Your task to perform on an android device: delete browsing data in the chrome app Image 0: 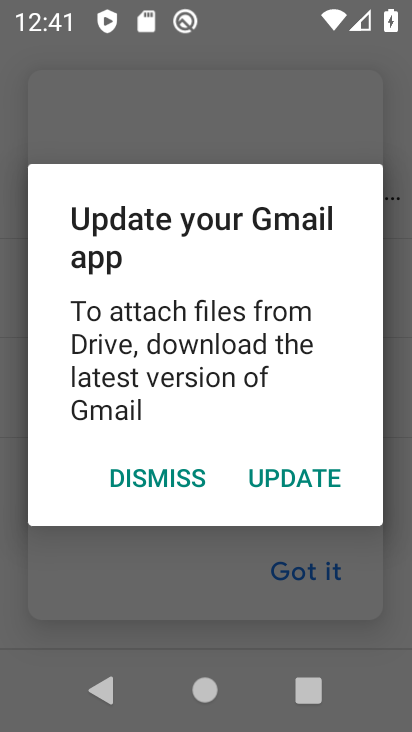
Step 0: click (191, 470)
Your task to perform on an android device: delete browsing data in the chrome app Image 1: 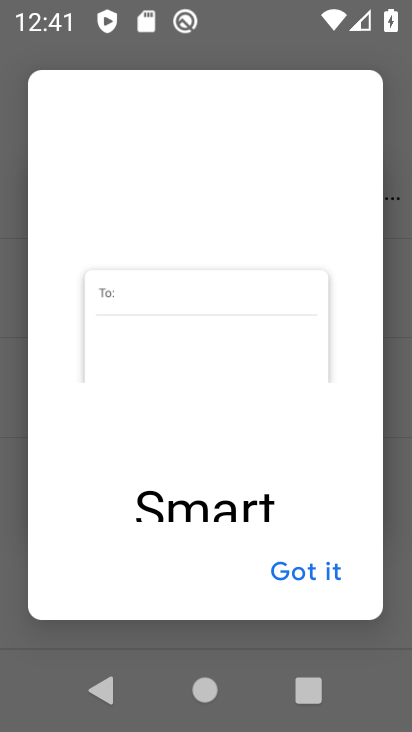
Step 1: click (298, 556)
Your task to perform on an android device: delete browsing data in the chrome app Image 2: 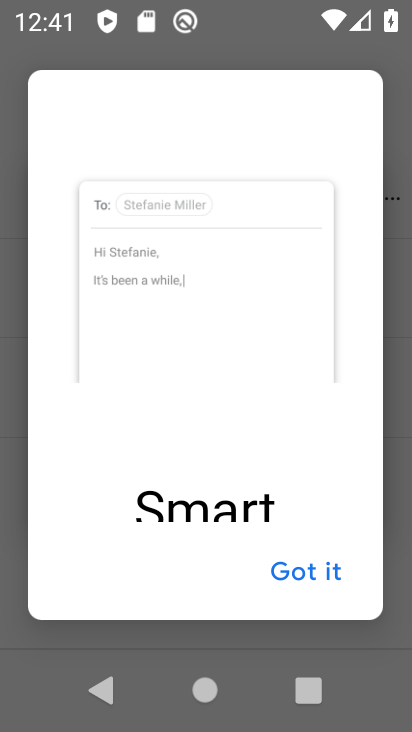
Step 2: click (304, 554)
Your task to perform on an android device: delete browsing data in the chrome app Image 3: 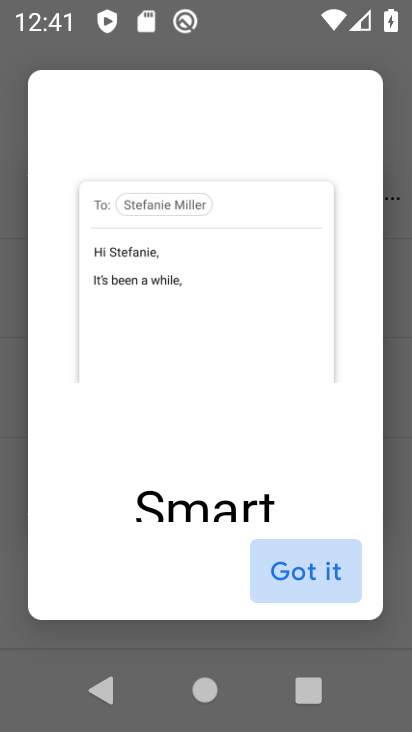
Step 3: click (305, 555)
Your task to perform on an android device: delete browsing data in the chrome app Image 4: 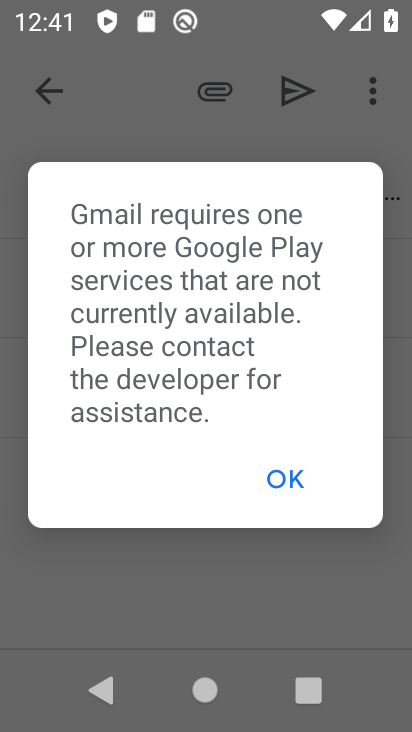
Step 4: click (289, 486)
Your task to perform on an android device: delete browsing data in the chrome app Image 5: 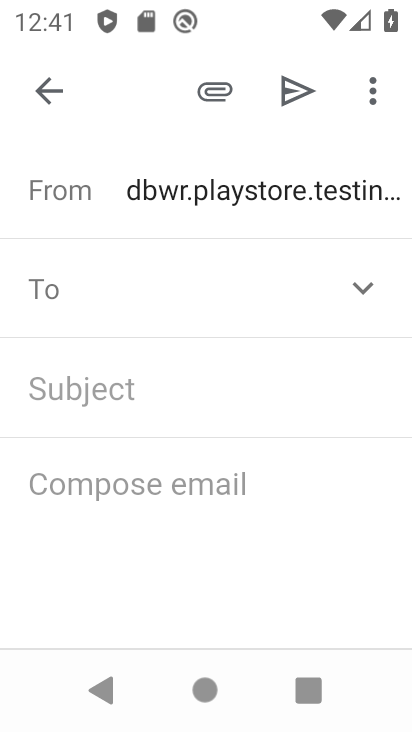
Step 5: click (269, 487)
Your task to perform on an android device: delete browsing data in the chrome app Image 6: 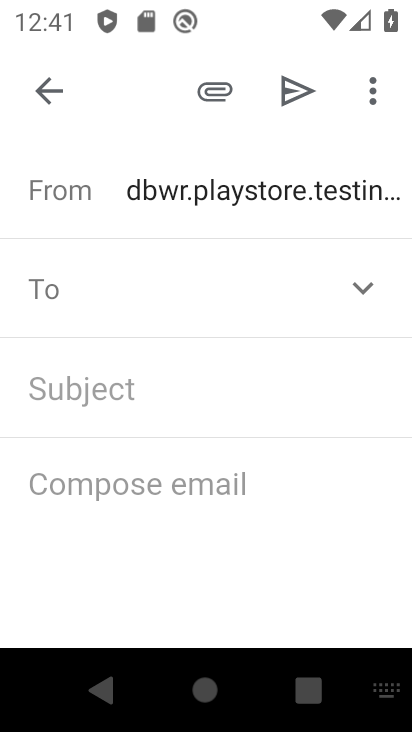
Step 6: click (54, 82)
Your task to perform on an android device: delete browsing data in the chrome app Image 7: 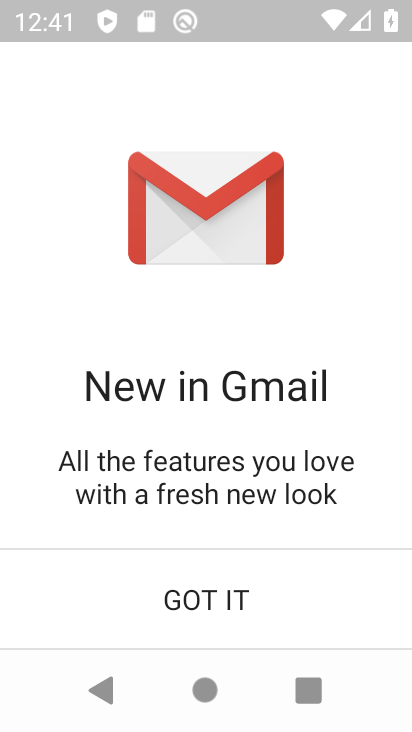
Step 7: click (207, 609)
Your task to perform on an android device: delete browsing data in the chrome app Image 8: 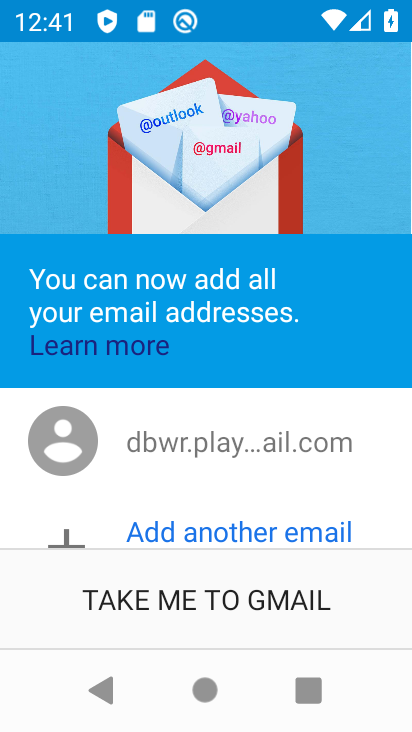
Step 8: click (188, 604)
Your task to perform on an android device: delete browsing data in the chrome app Image 9: 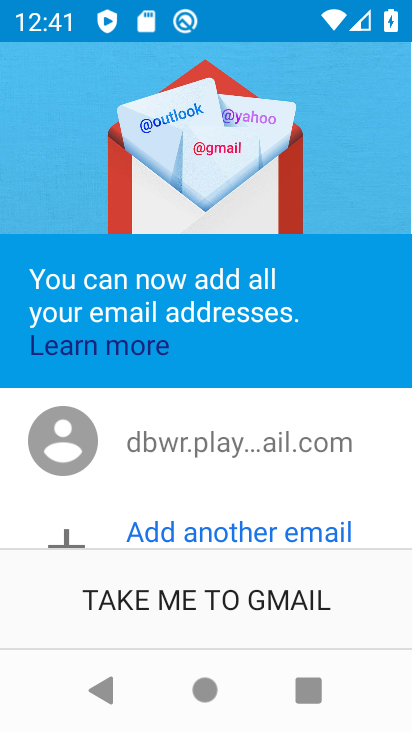
Step 9: click (188, 605)
Your task to perform on an android device: delete browsing data in the chrome app Image 10: 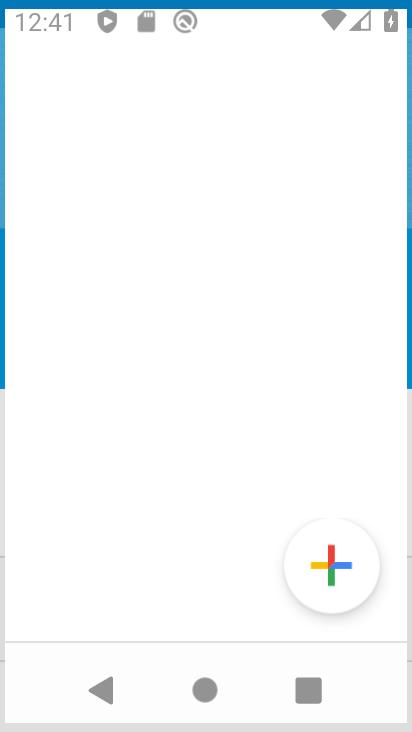
Step 10: click (188, 605)
Your task to perform on an android device: delete browsing data in the chrome app Image 11: 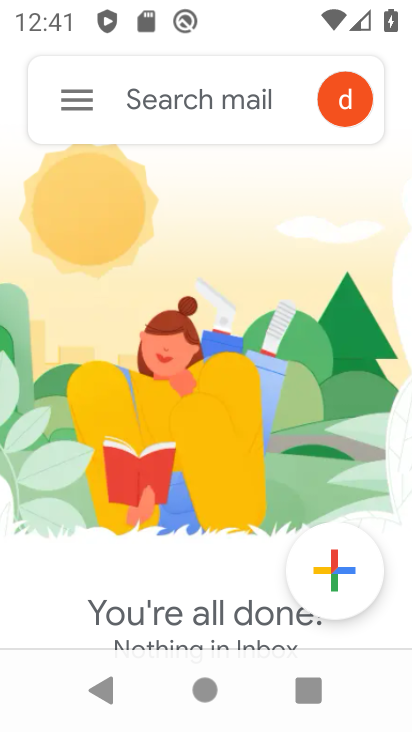
Step 11: press back button
Your task to perform on an android device: delete browsing data in the chrome app Image 12: 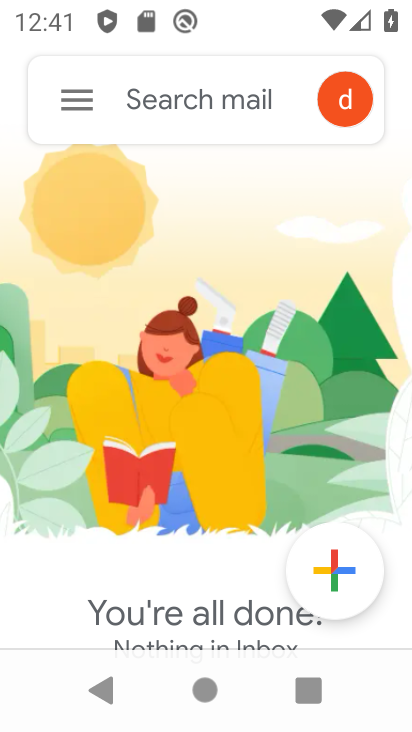
Step 12: press back button
Your task to perform on an android device: delete browsing data in the chrome app Image 13: 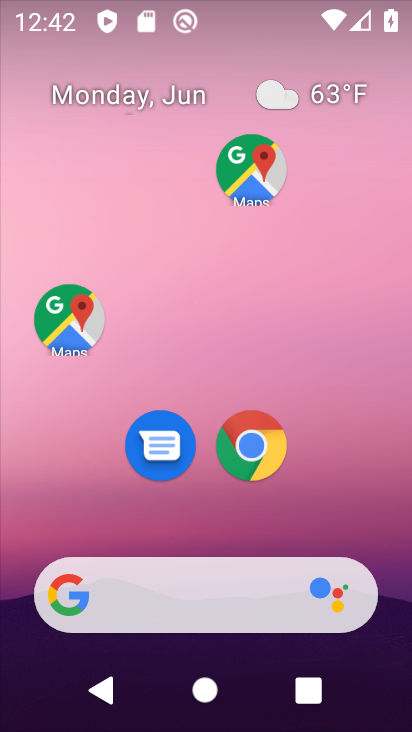
Step 13: drag from (247, 628) to (122, 121)
Your task to perform on an android device: delete browsing data in the chrome app Image 14: 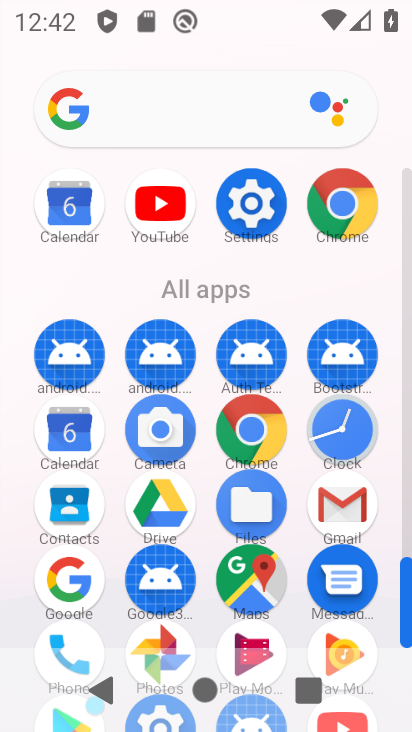
Step 14: click (339, 213)
Your task to perform on an android device: delete browsing data in the chrome app Image 15: 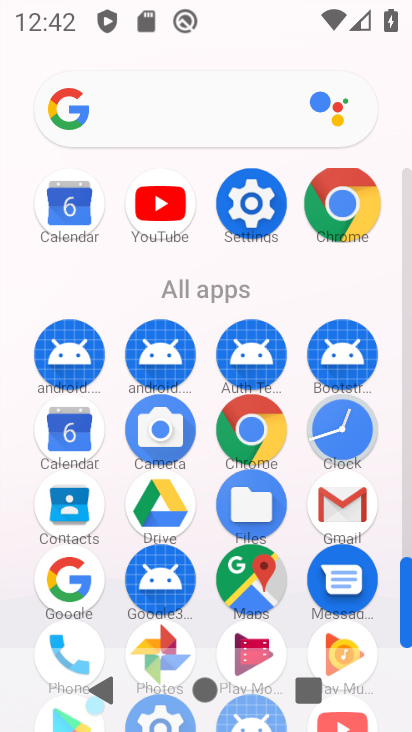
Step 15: click (341, 213)
Your task to perform on an android device: delete browsing data in the chrome app Image 16: 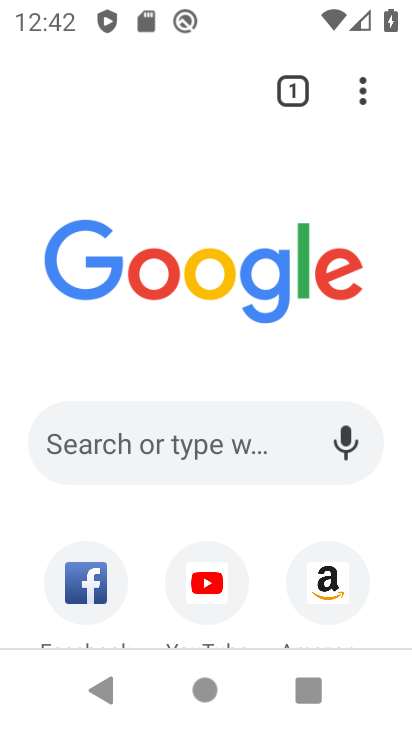
Step 16: drag from (364, 102) to (86, 294)
Your task to perform on an android device: delete browsing data in the chrome app Image 17: 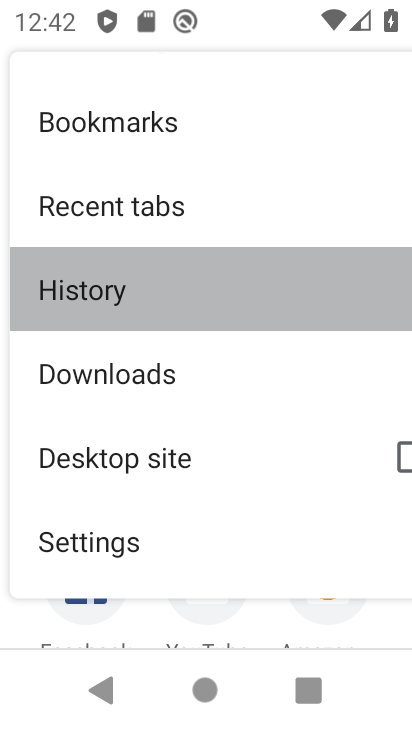
Step 17: click (86, 294)
Your task to perform on an android device: delete browsing data in the chrome app Image 18: 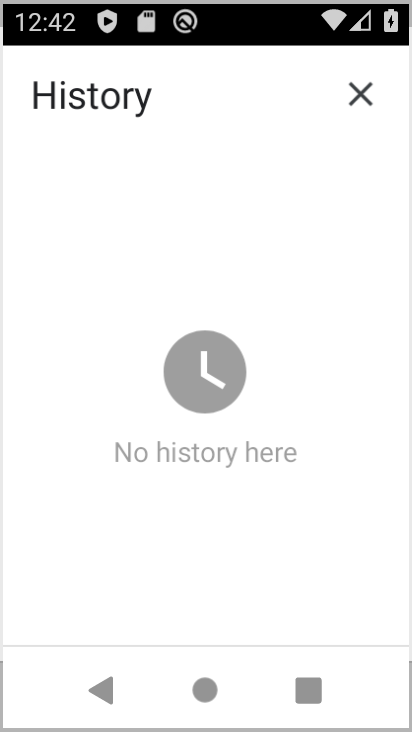
Step 18: click (101, 280)
Your task to perform on an android device: delete browsing data in the chrome app Image 19: 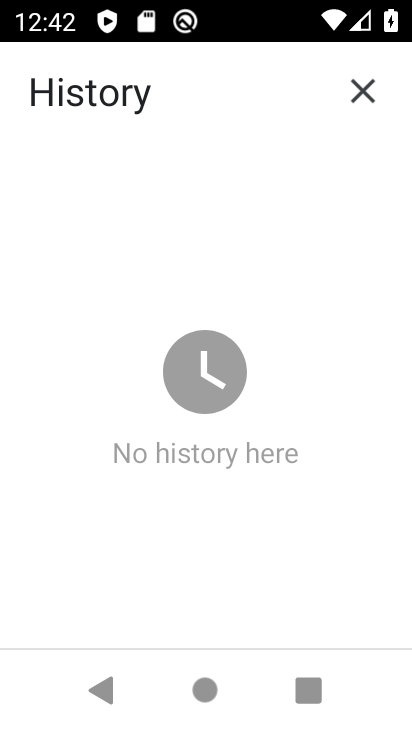
Step 19: task complete